Your task to perform on an android device: find photos in the google photos app Image 0: 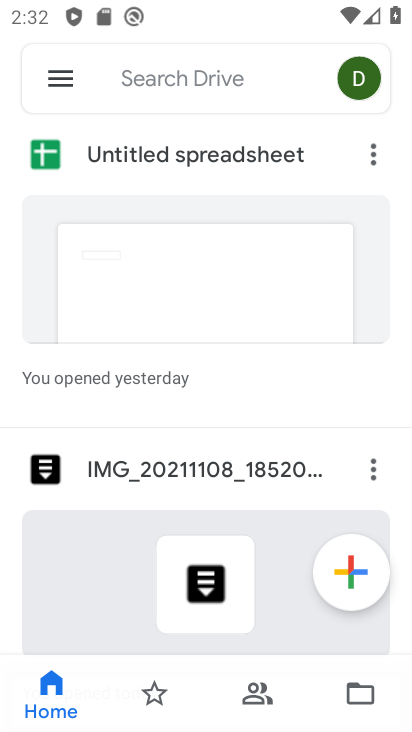
Step 0: press home button
Your task to perform on an android device: find photos in the google photos app Image 1: 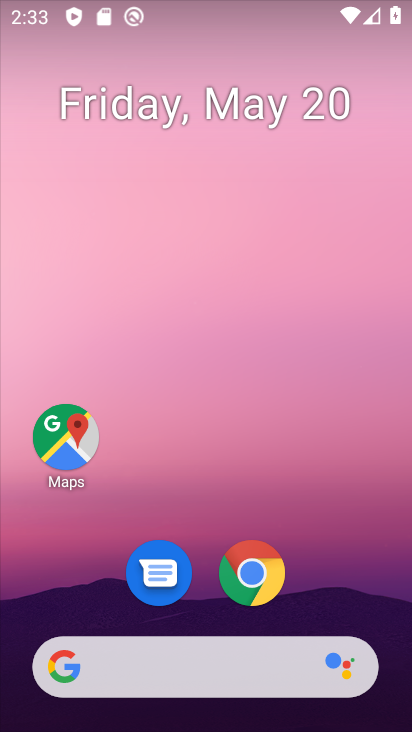
Step 1: drag from (368, 568) to (271, 30)
Your task to perform on an android device: find photos in the google photos app Image 2: 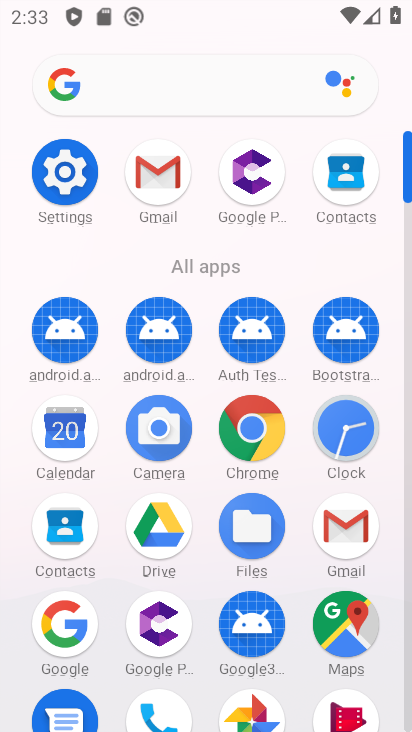
Step 2: click (255, 703)
Your task to perform on an android device: find photos in the google photos app Image 3: 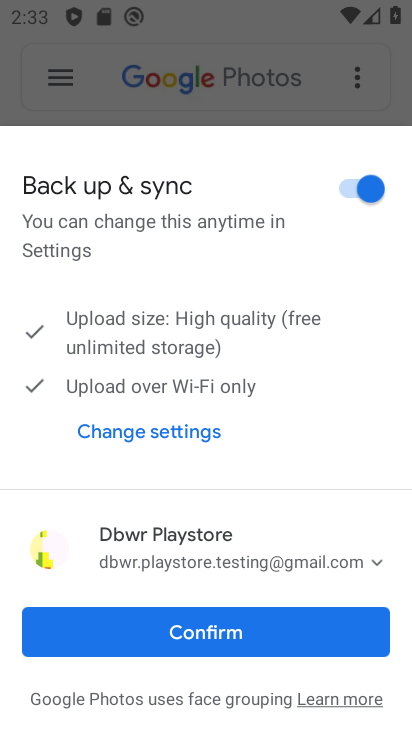
Step 3: click (243, 637)
Your task to perform on an android device: find photos in the google photos app Image 4: 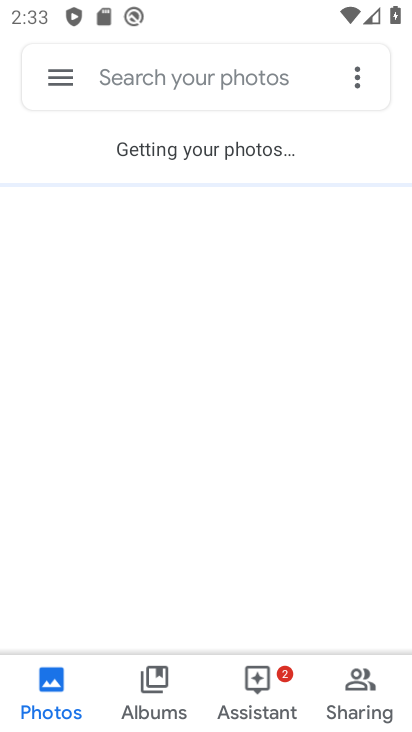
Step 4: task complete